Your task to perform on an android device: turn on wifi Image 0: 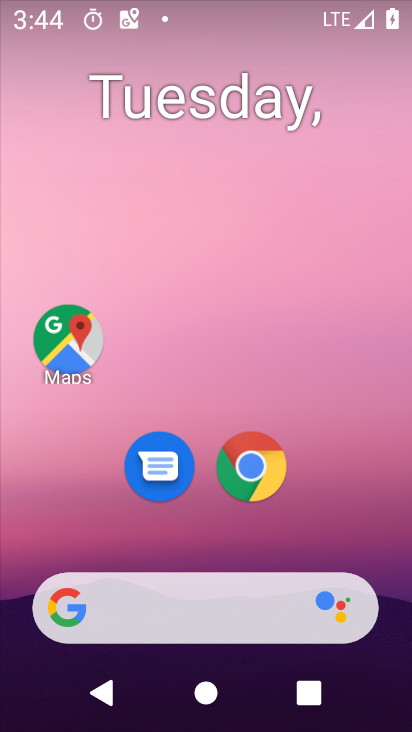
Step 0: drag from (375, 548) to (364, 201)
Your task to perform on an android device: turn on wifi Image 1: 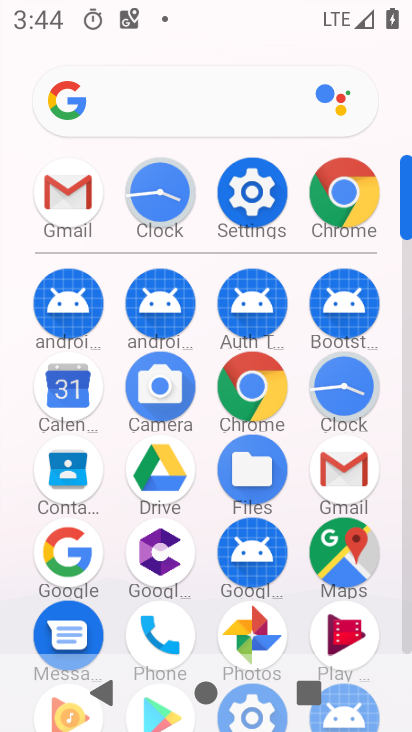
Step 1: click (265, 222)
Your task to perform on an android device: turn on wifi Image 2: 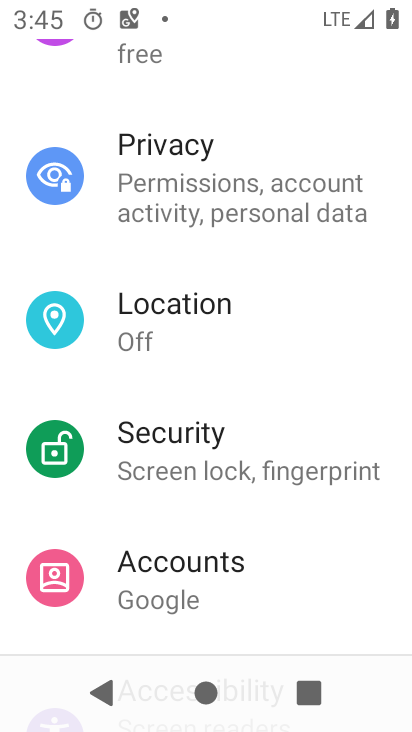
Step 2: drag from (315, 270) to (330, 380)
Your task to perform on an android device: turn on wifi Image 3: 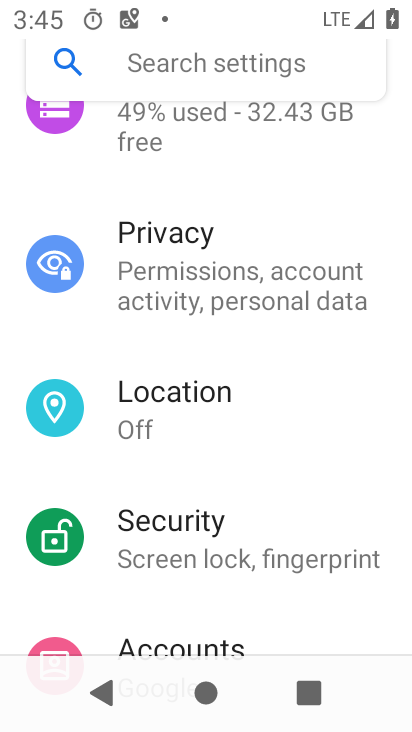
Step 3: drag from (357, 177) to (353, 317)
Your task to perform on an android device: turn on wifi Image 4: 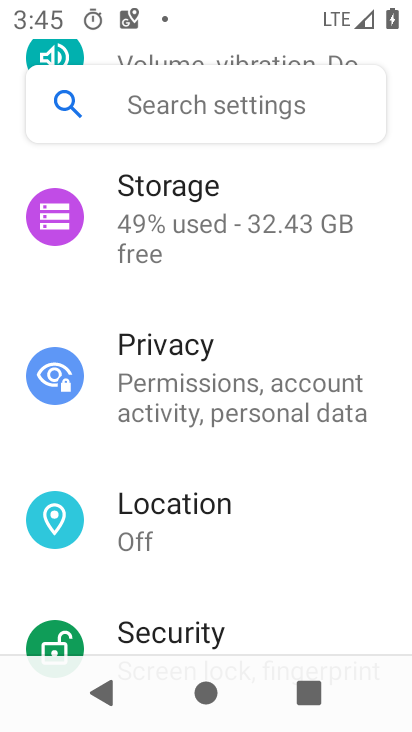
Step 4: drag from (361, 172) to (361, 338)
Your task to perform on an android device: turn on wifi Image 5: 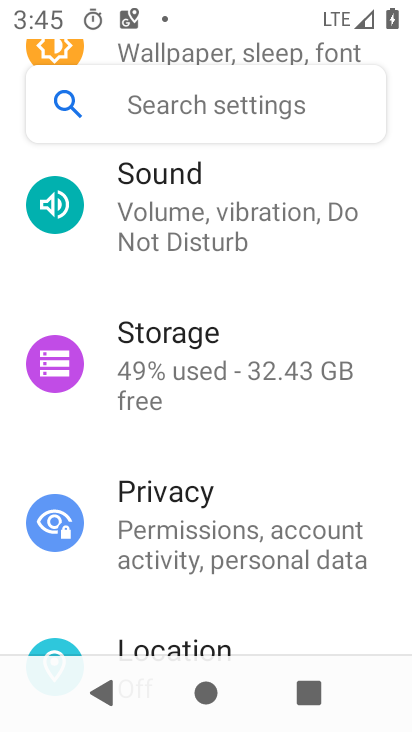
Step 5: drag from (347, 179) to (344, 337)
Your task to perform on an android device: turn on wifi Image 6: 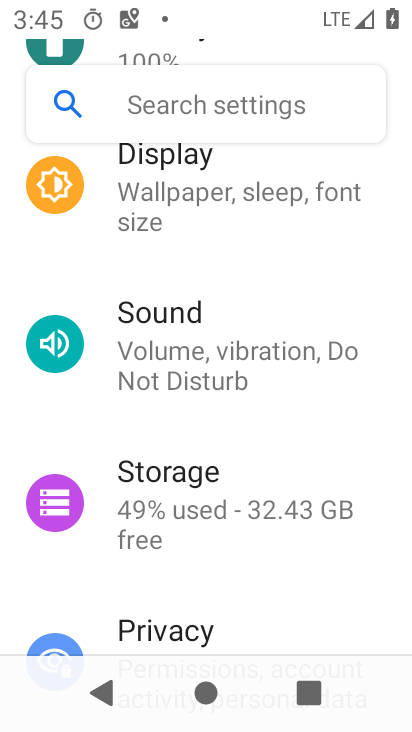
Step 6: drag from (372, 165) to (369, 337)
Your task to perform on an android device: turn on wifi Image 7: 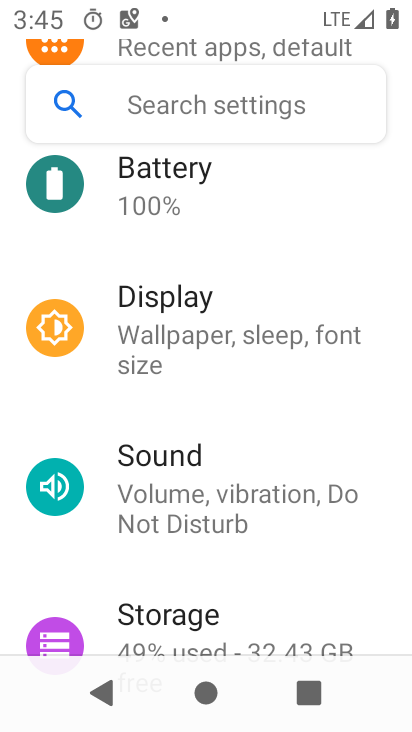
Step 7: drag from (360, 195) to (352, 346)
Your task to perform on an android device: turn on wifi Image 8: 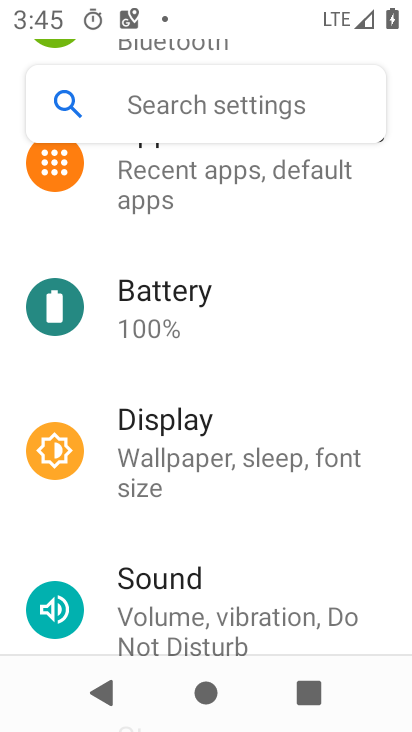
Step 8: drag from (367, 227) to (353, 360)
Your task to perform on an android device: turn on wifi Image 9: 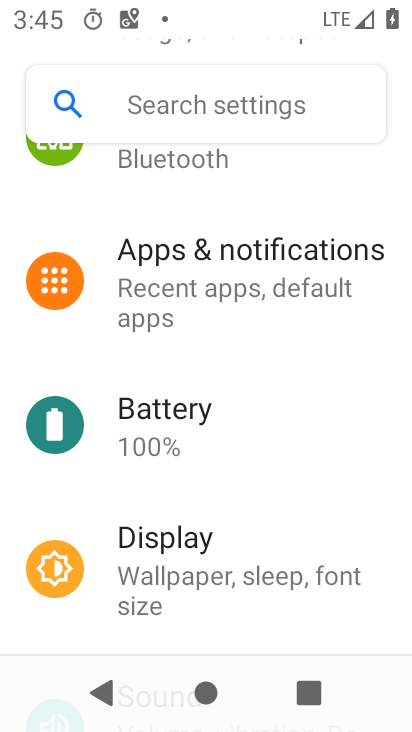
Step 9: drag from (333, 195) to (328, 329)
Your task to perform on an android device: turn on wifi Image 10: 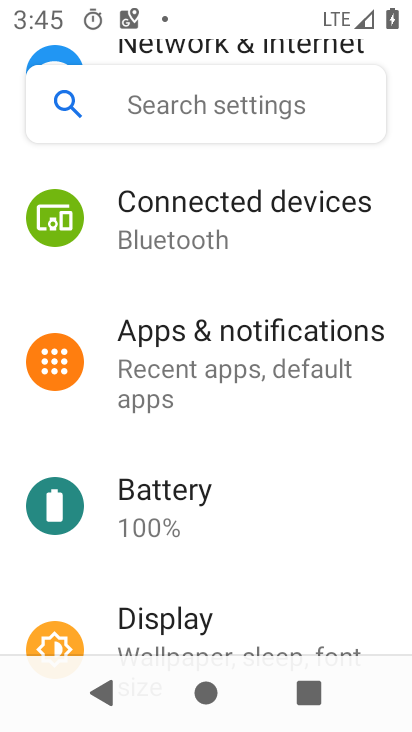
Step 10: drag from (351, 176) to (331, 352)
Your task to perform on an android device: turn on wifi Image 11: 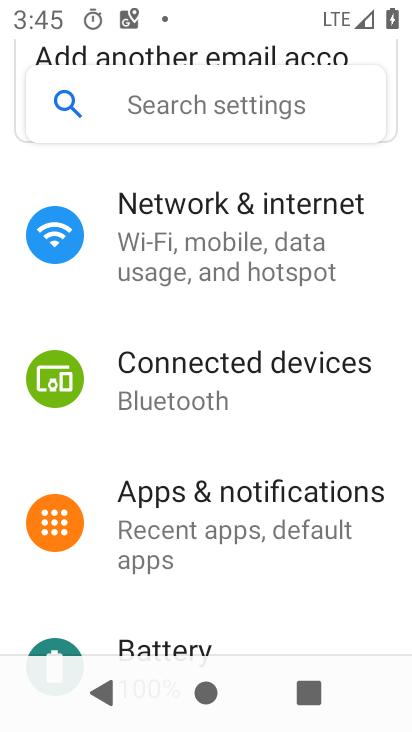
Step 11: click (321, 276)
Your task to perform on an android device: turn on wifi Image 12: 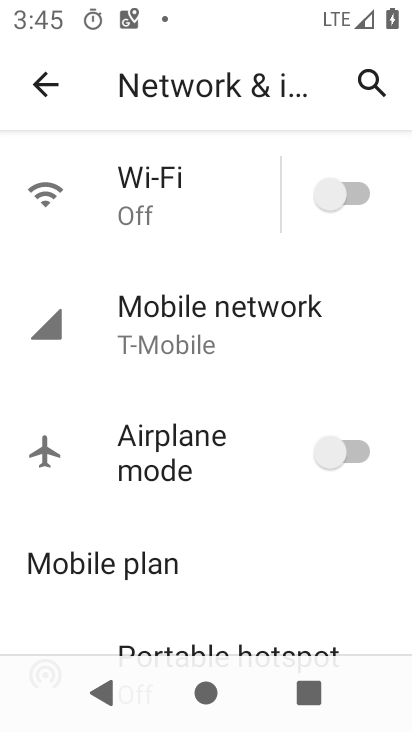
Step 12: click (337, 198)
Your task to perform on an android device: turn on wifi Image 13: 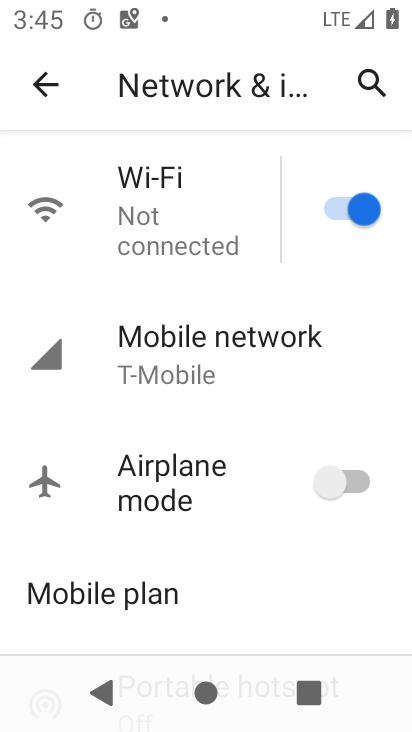
Step 13: task complete